Your task to perform on an android device: Turn off the flashlight Image 0: 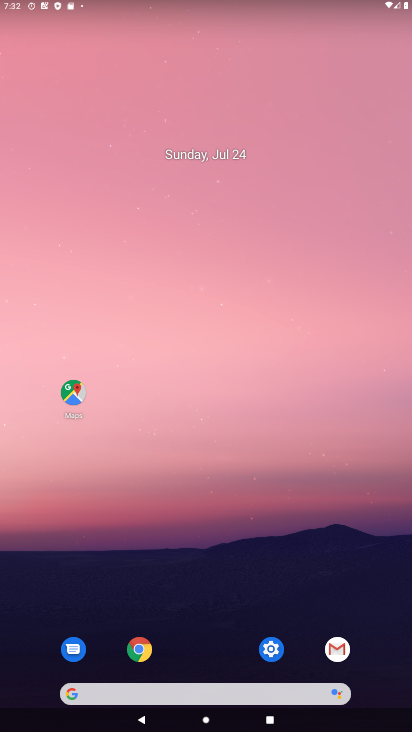
Step 0: click (273, 644)
Your task to perform on an android device: Turn off the flashlight Image 1: 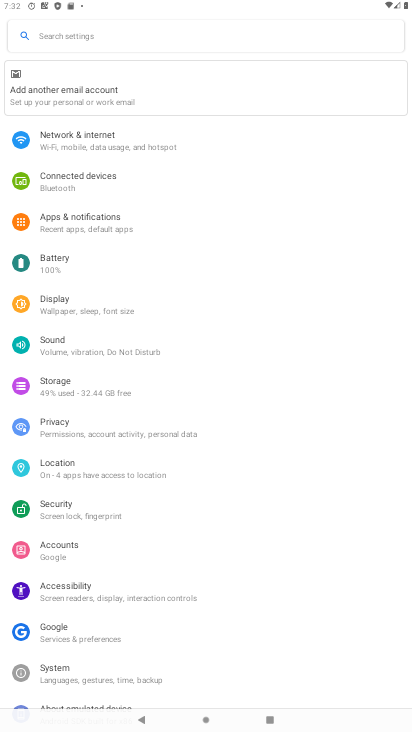
Step 1: click (80, 42)
Your task to perform on an android device: Turn off the flashlight Image 2: 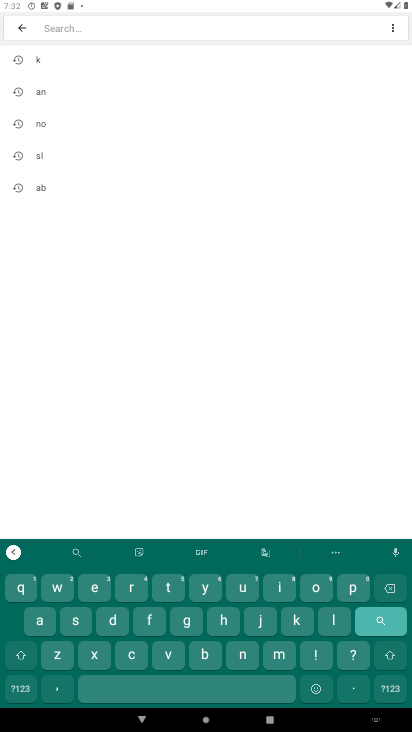
Step 2: click (144, 628)
Your task to perform on an android device: Turn off the flashlight Image 3: 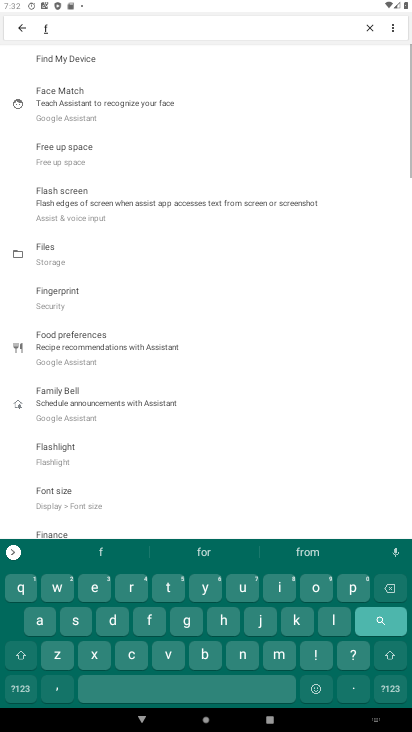
Step 3: click (336, 623)
Your task to perform on an android device: Turn off the flashlight Image 4: 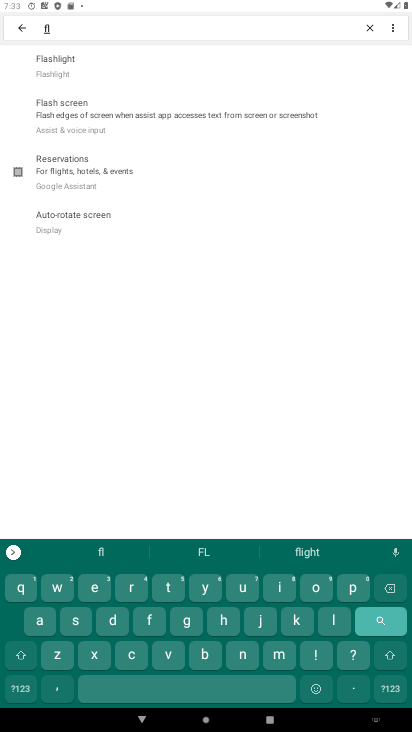
Step 4: click (110, 72)
Your task to perform on an android device: Turn off the flashlight Image 5: 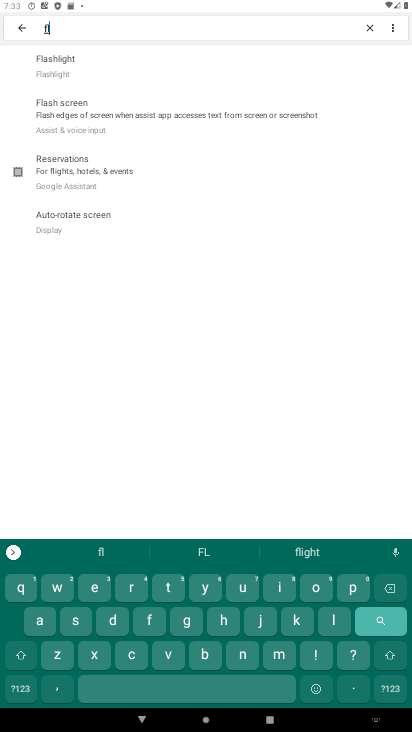
Step 5: click (110, 71)
Your task to perform on an android device: Turn off the flashlight Image 6: 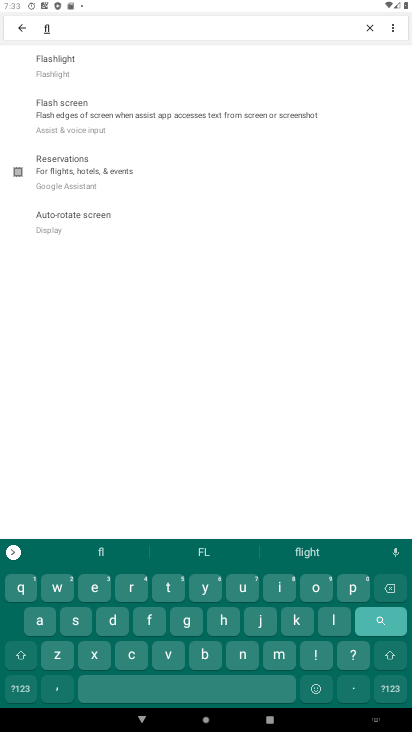
Step 6: click (110, 70)
Your task to perform on an android device: Turn off the flashlight Image 7: 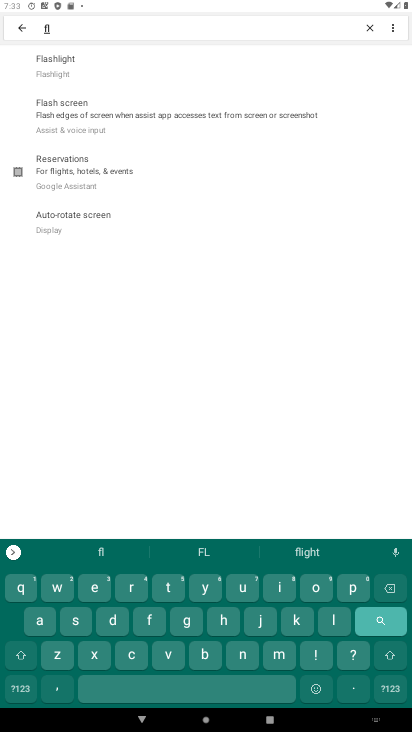
Step 7: task complete